Your task to perform on an android device: Go to Reddit.com Image 0: 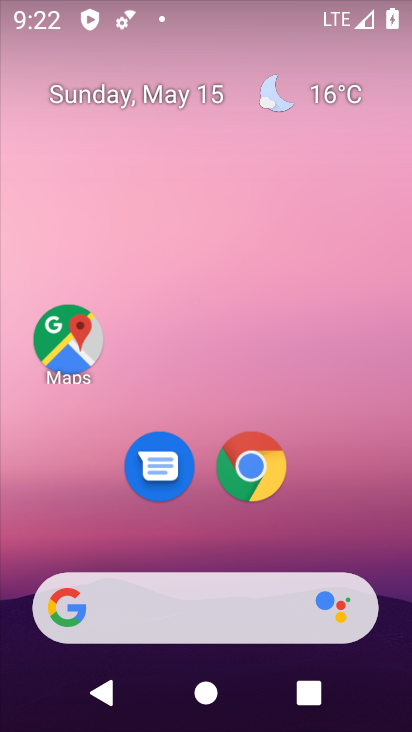
Step 0: click (212, 613)
Your task to perform on an android device: Go to Reddit.com Image 1: 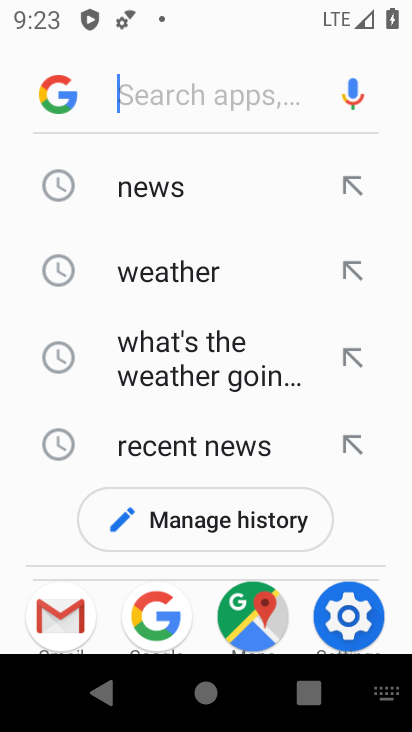
Step 1: type "Reddit.com"
Your task to perform on an android device: Go to Reddit.com Image 2: 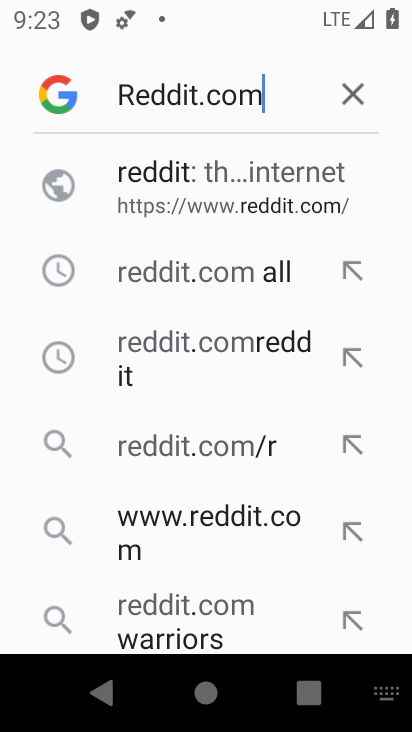
Step 2: click (249, 199)
Your task to perform on an android device: Go to Reddit.com Image 3: 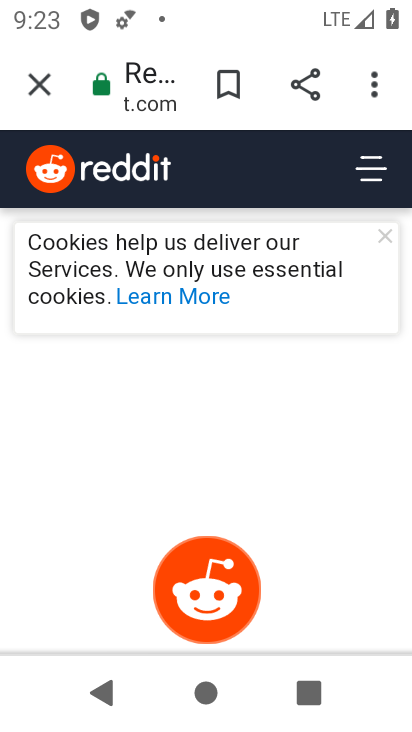
Step 3: task complete